Your task to perform on an android device: toggle location history Image 0: 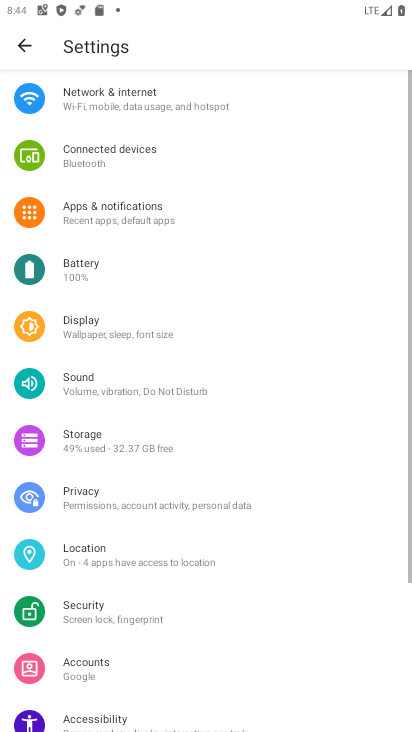
Step 0: press home button
Your task to perform on an android device: toggle location history Image 1: 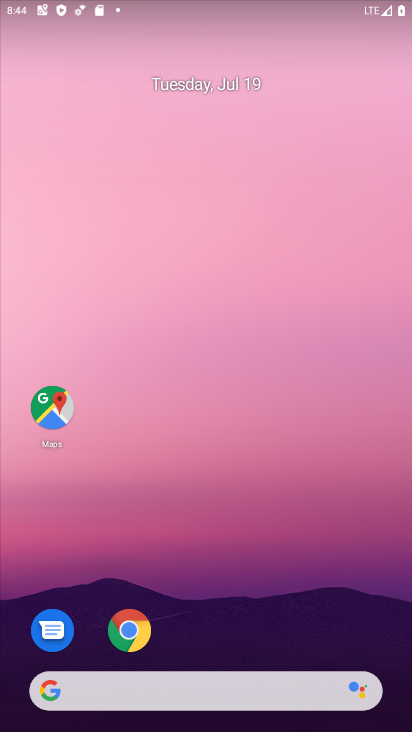
Step 1: drag from (238, 659) to (229, 139)
Your task to perform on an android device: toggle location history Image 2: 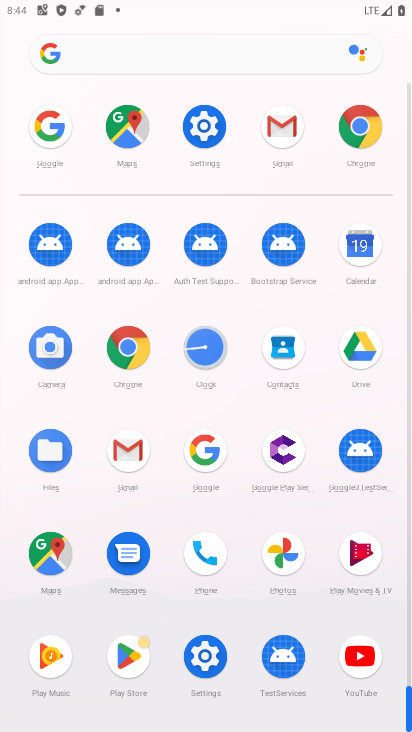
Step 2: click (209, 146)
Your task to perform on an android device: toggle location history Image 3: 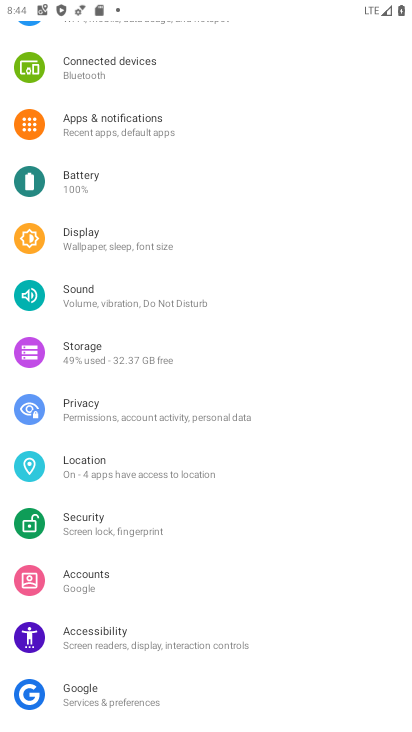
Step 3: click (149, 477)
Your task to perform on an android device: toggle location history Image 4: 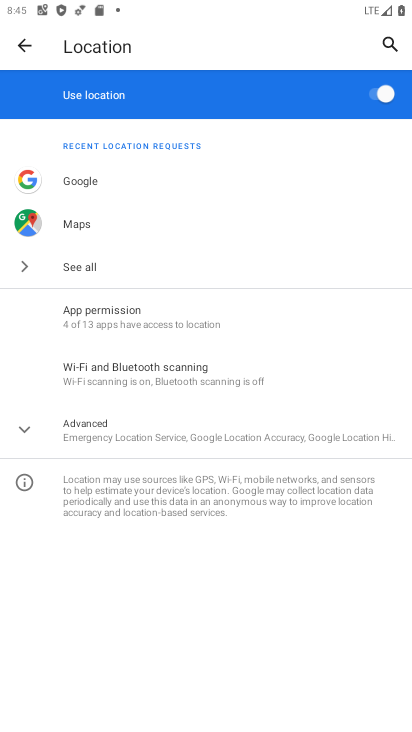
Step 4: click (141, 434)
Your task to perform on an android device: toggle location history Image 5: 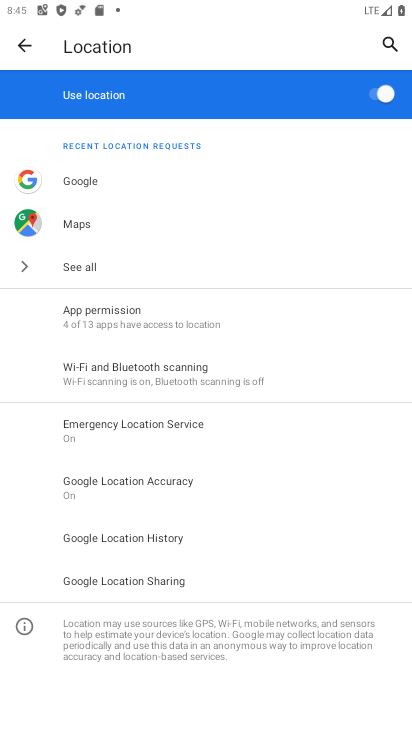
Step 5: click (173, 543)
Your task to perform on an android device: toggle location history Image 6: 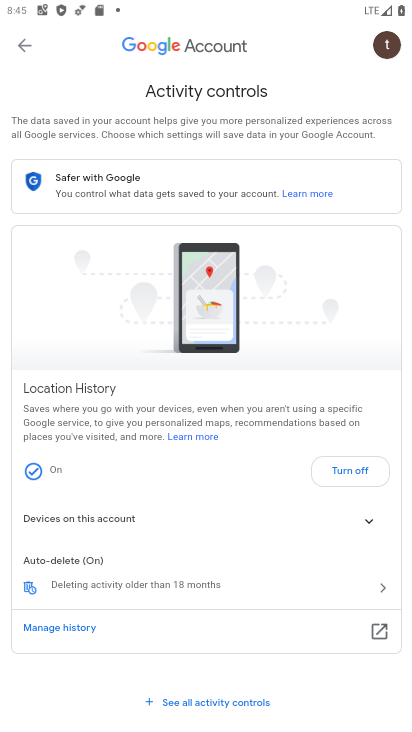
Step 6: click (335, 474)
Your task to perform on an android device: toggle location history Image 7: 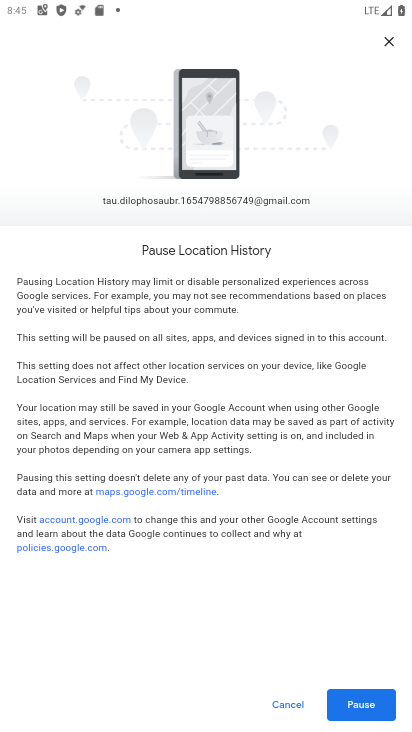
Step 7: click (351, 707)
Your task to perform on an android device: toggle location history Image 8: 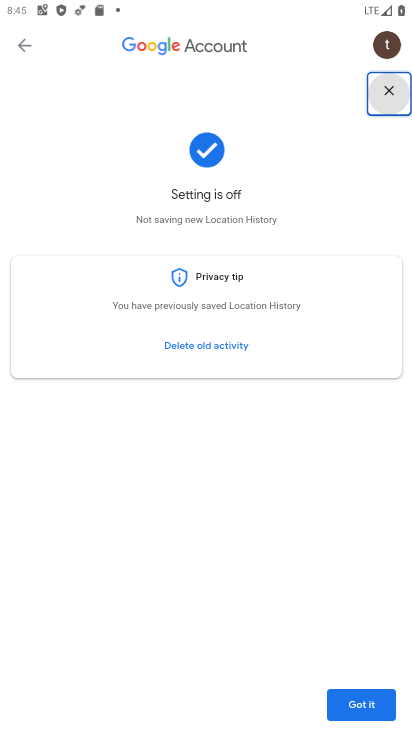
Step 8: click (359, 719)
Your task to perform on an android device: toggle location history Image 9: 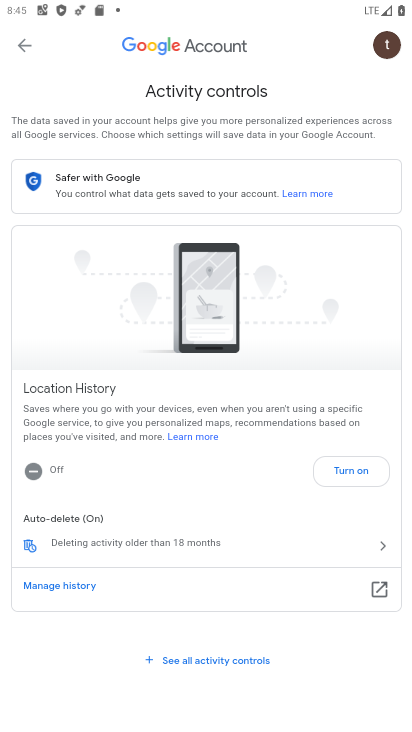
Step 9: task complete